Your task to perform on an android device: refresh tabs in the chrome app Image 0: 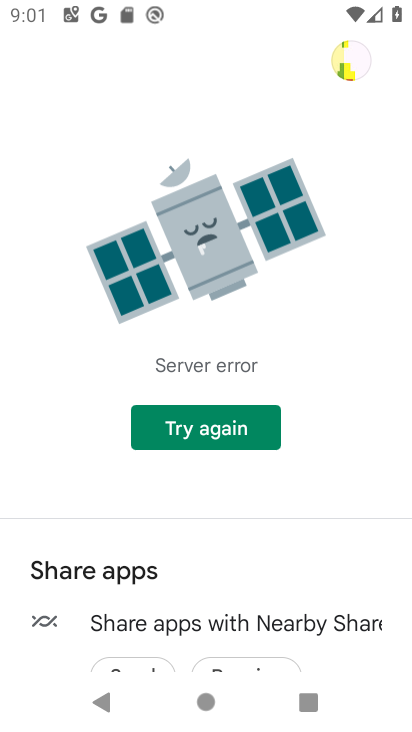
Step 0: press home button
Your task to perform on an android device: refresh tabs in the chrome app Image 1: 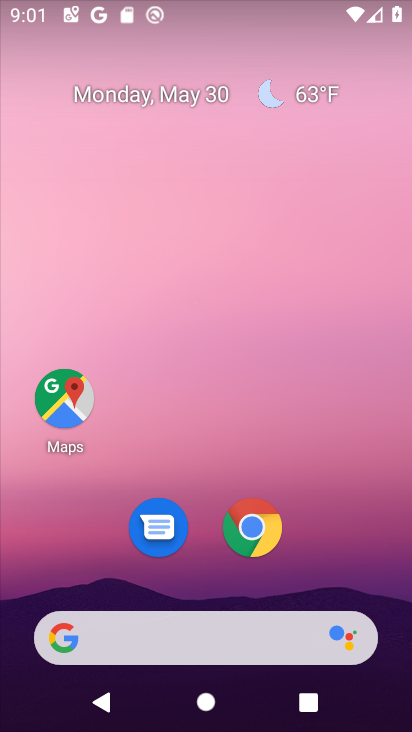
Step 1: click (259, 525)
Your task to perform on an android device: refresh tabs in the chrome app Image 2: 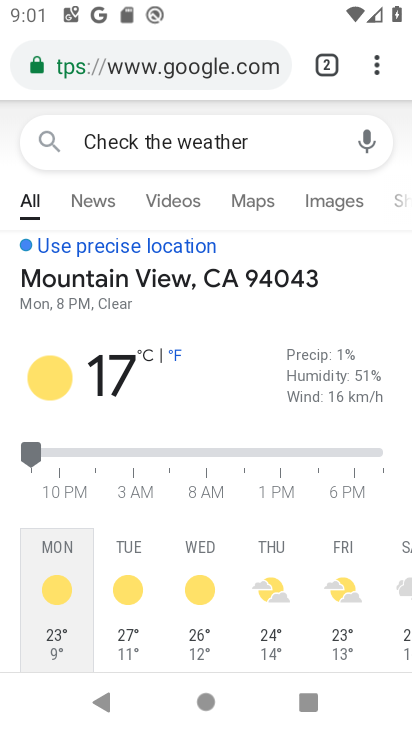
Step 2: click (383, 62)
Your task to perform on an android device: refresh tabs in the chrome app Image 3: 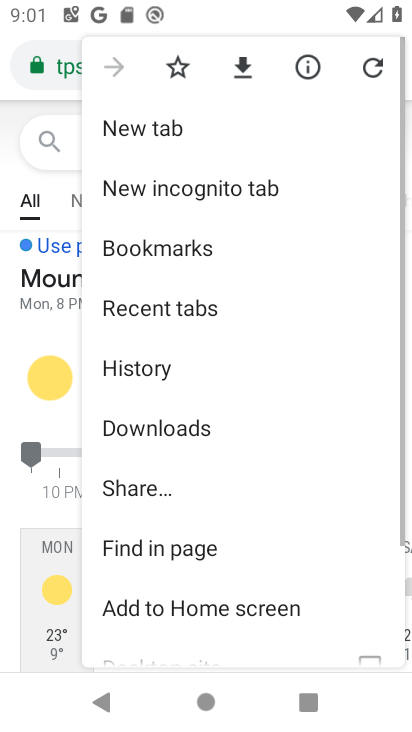
Step 3: click (361, 71)
Your task to perform on an android device: refresh tabs in the chrome app Image 4: 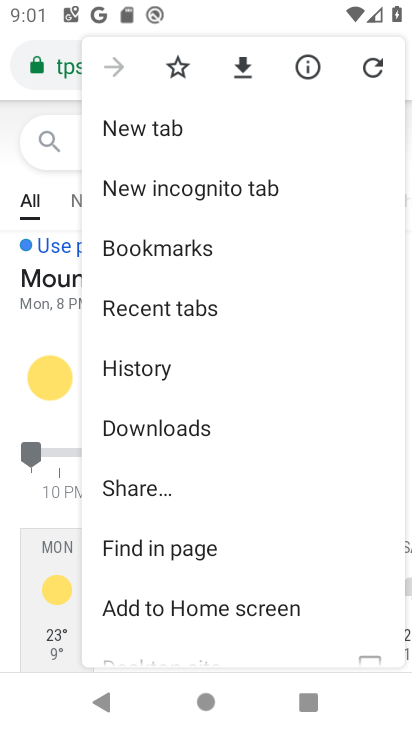
Step 4: click (373, 70)
Your task to perform on an android device: refresh tabs in the chrome app Image 5: 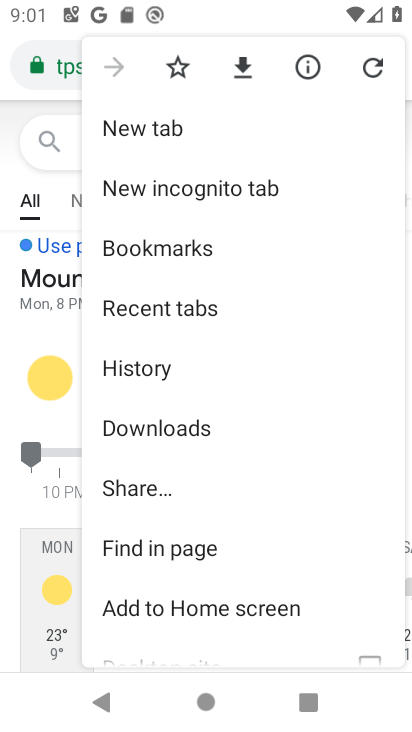
Step 5: click (373, 70)
Your task to perform on an android device: refresh tabs in the chrome app Image 6: 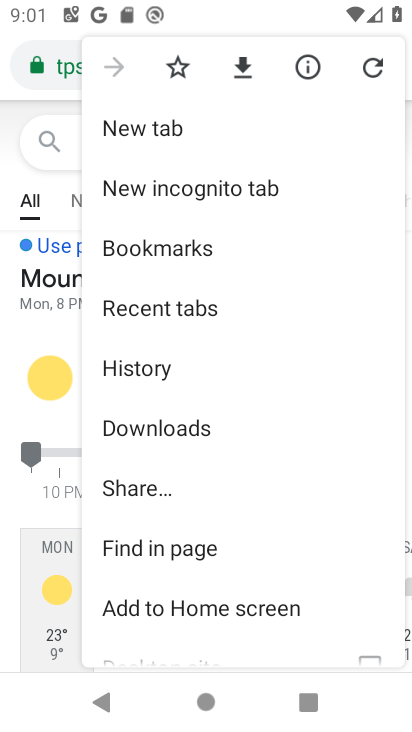
Step 6: task complete